Your task to perform on an android device: open sync settings in chrome Image 0: 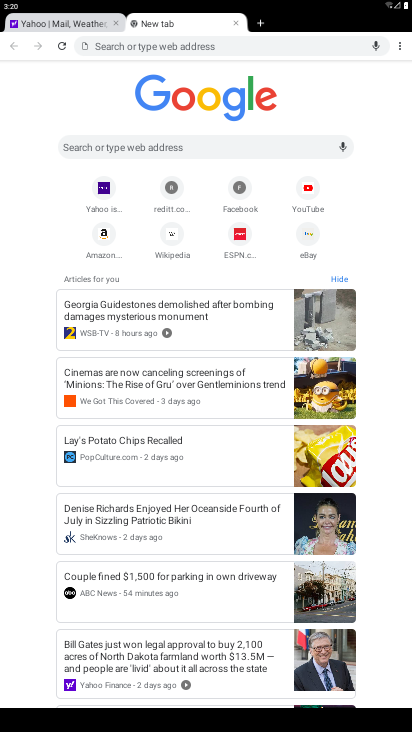
Step 0: press home button
Your task to perform on an android device: open sync settings in chrome Image 1: 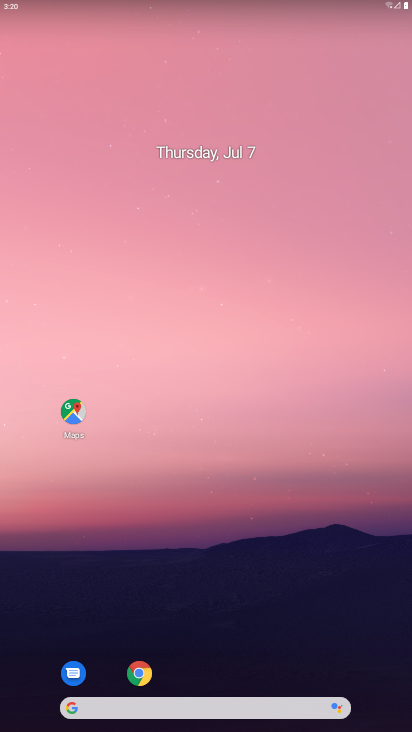
Step 1: click (145, 668)
Your task to perform on an android device: open sync settings in chrome Image 2: 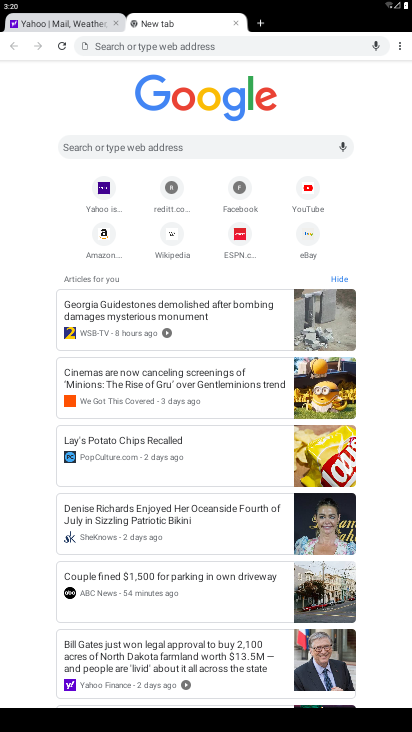
Step 2: drag from (394, 48) to (323, 211)
Your task to perform on an android device: open sync settings in chrome Image 3: 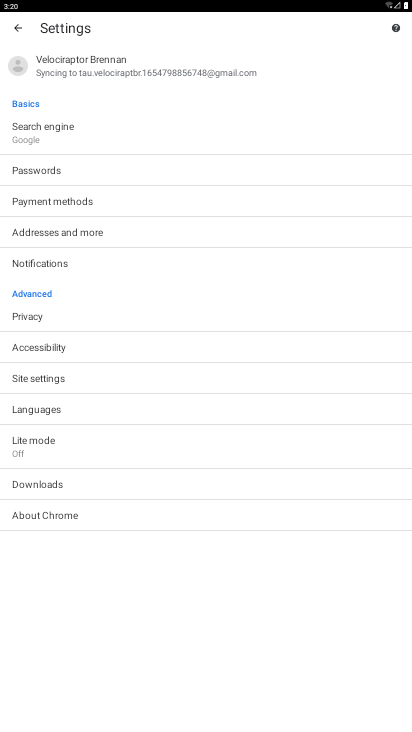
Step 3: click (88, 72)
Your task to perform on an android device: open sync settings in chrome Image 4: 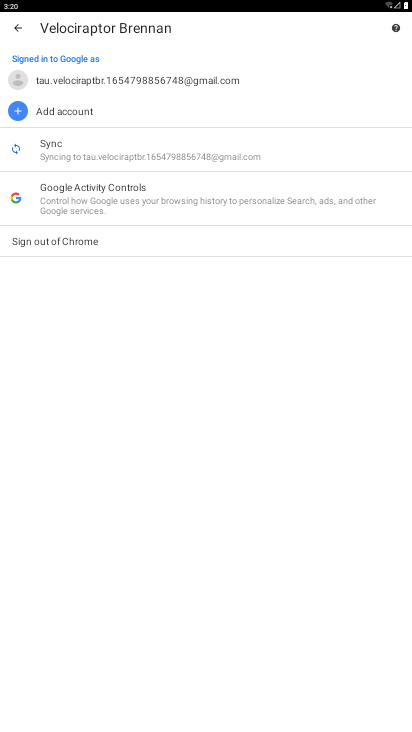
Step 4: click (103, 157)
Your task to perform on an android device: open sync settings in chrome Image 5: 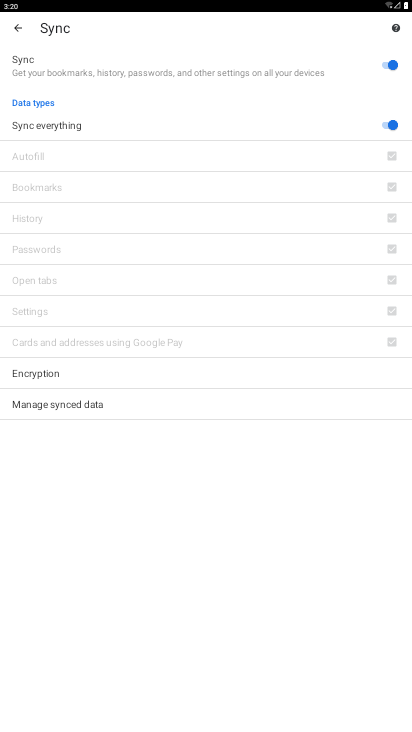
Step 5: task complete